Your task to perform on an android device: turn smart compose on in the gmail app Image 0: 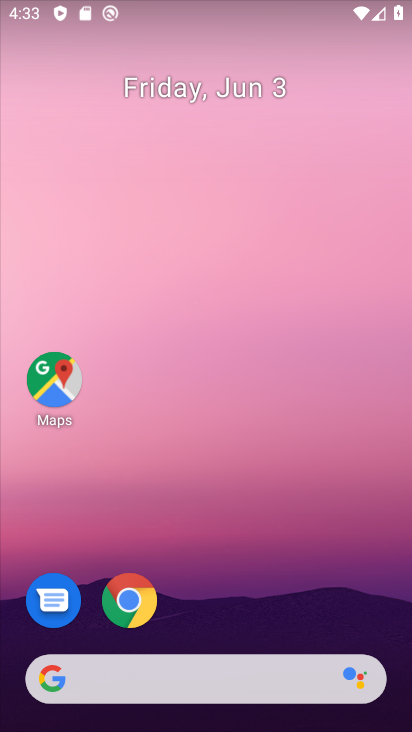
Step 0: drag from (221, 567) to (267, 167)
Your task to perform on an android device: turn smart compose on in the gmail app Image 1: 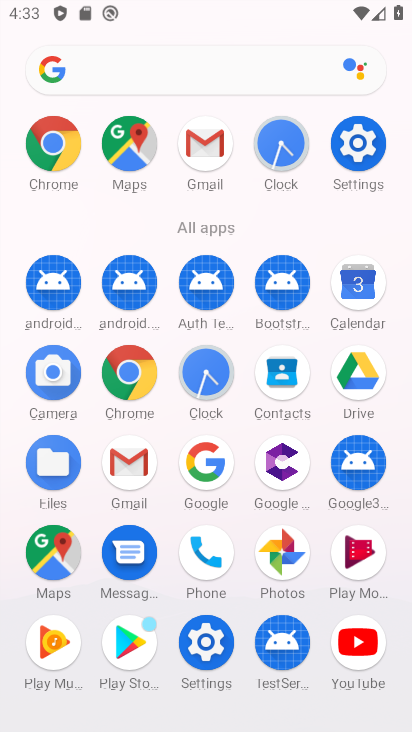
Step 1: click (143, 463)
Your task to perform on an android device: turn smart compose on in the gmail app Image 2: 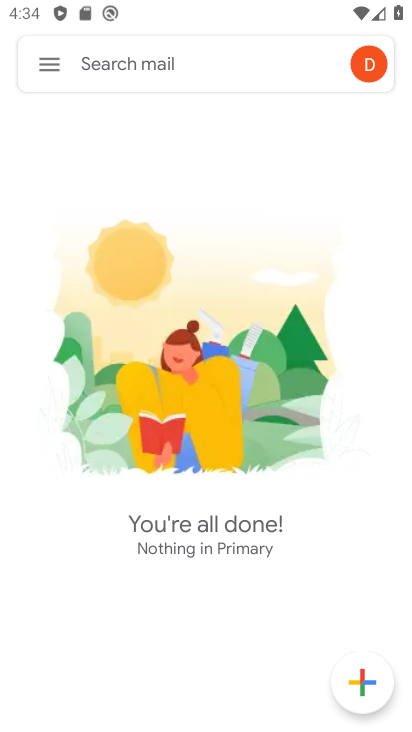
Step 2: click (39, 59)
Your task to perform on an android device: turn smart compose on in the gmail app Image 3: 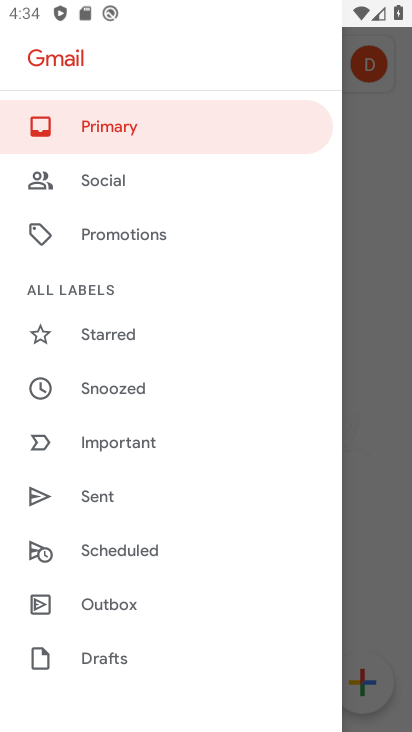
Step 3: drag from (150, 574) to (212, 186)
Your task to perform on an android device: turn smart compose on in the gmail app Image 4: 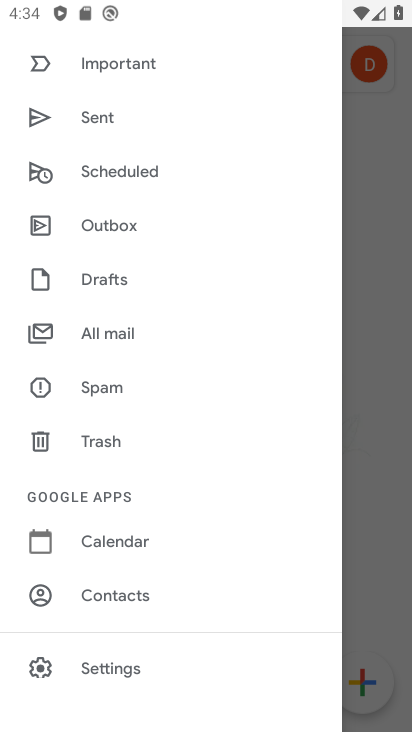
Step 4: click (106, 665)
Your task to perform on an android device: turn smart compose on in the gmail app Image 5: 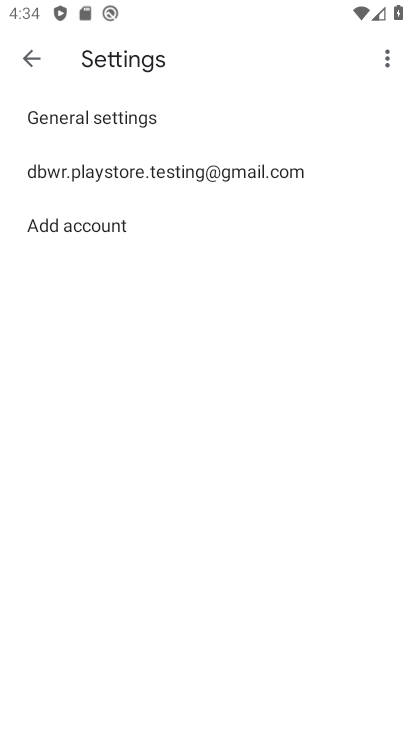
Step 5: click (163, 171)
Your task to perform on an android device: turn smart compose on in the gmail app Image 6: 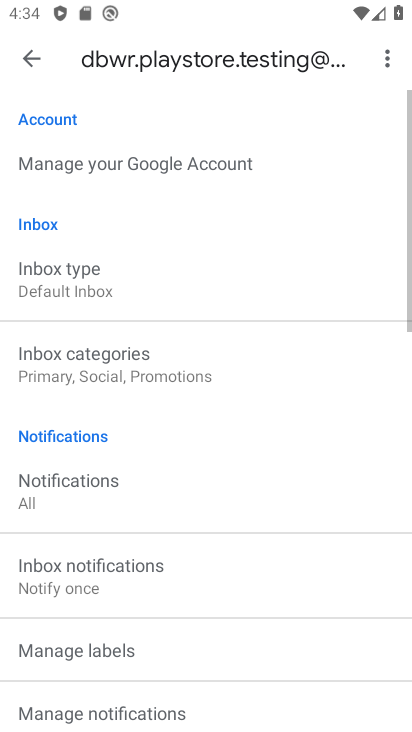
Step 6: task complete